Your task to perform on an android device: search for starred emails in the gmail app Image 0: 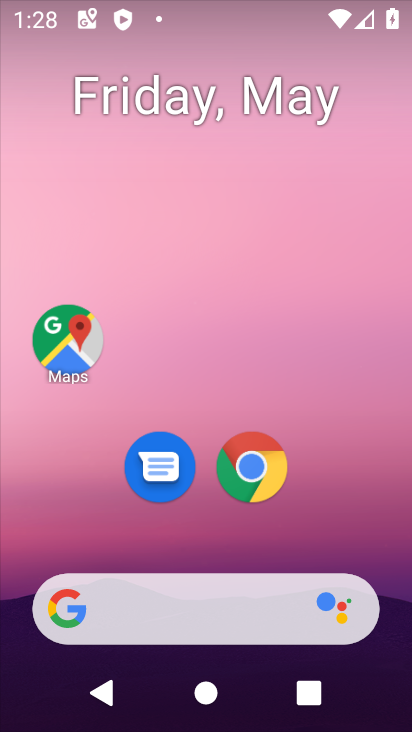
Step 0: drag from (331, 524) to (312, 75)
Your task to perform on an android device: search for starred emails in the gmail app Image 1: 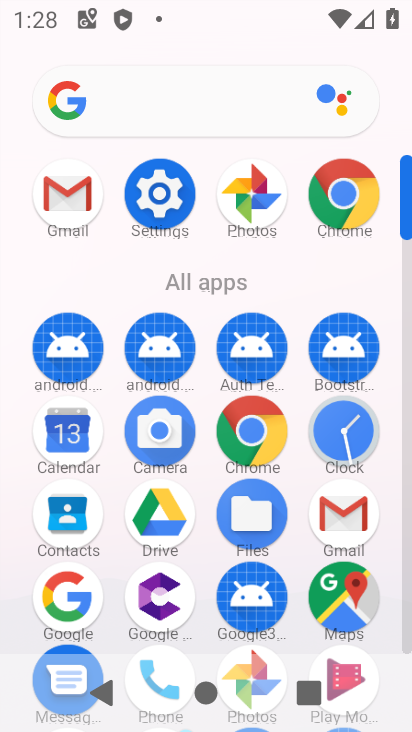
Step 1: click (80, 211)
Your task to perform on an android device: search for starred emails in the gmail app Image 2: 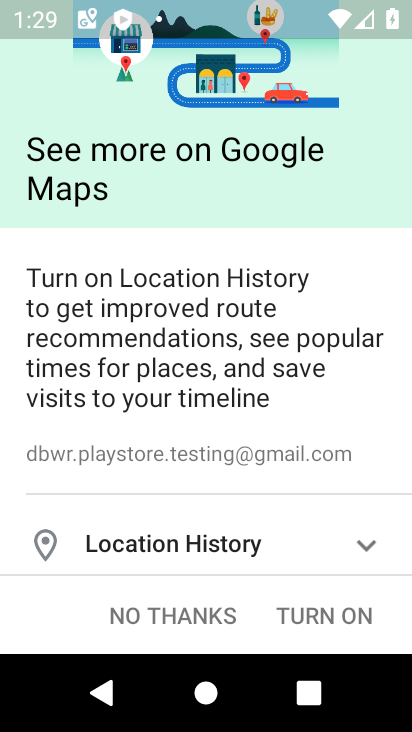
Step 2: click (158, 613)
Your task to perform on an android device: search for starred emails in the gmail app Image 3: 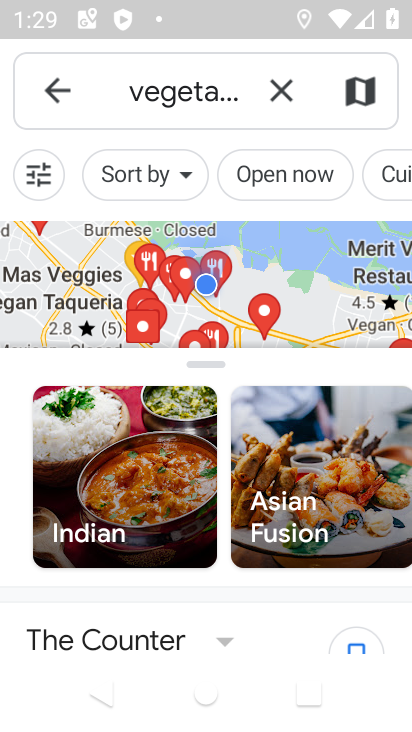
Step 3: press home button
Your task to perform on an android device: search for starred emails in the gmail app Image 4: 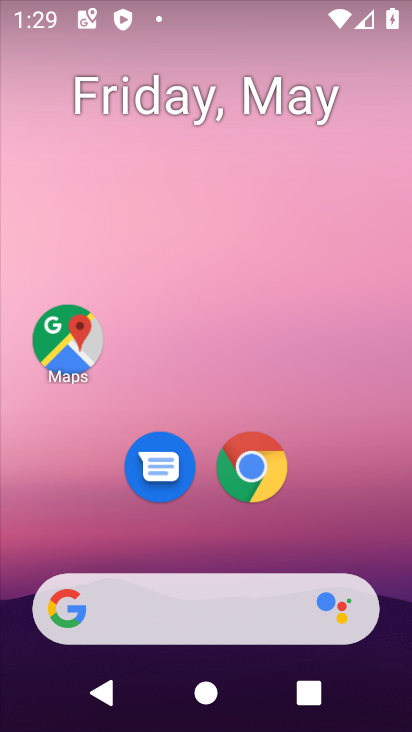
Step 4: drag from (343, 517) to (292, 35)
Your task to perform on an android device: search for starred emails in the gmail app Image 5: 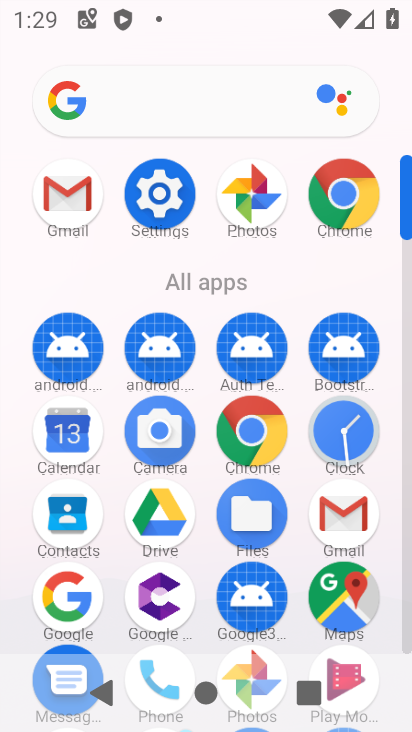
Step 5: click (338, 517)
Your task to perform on an android device: search for starred emails in the gmail app Image 6: 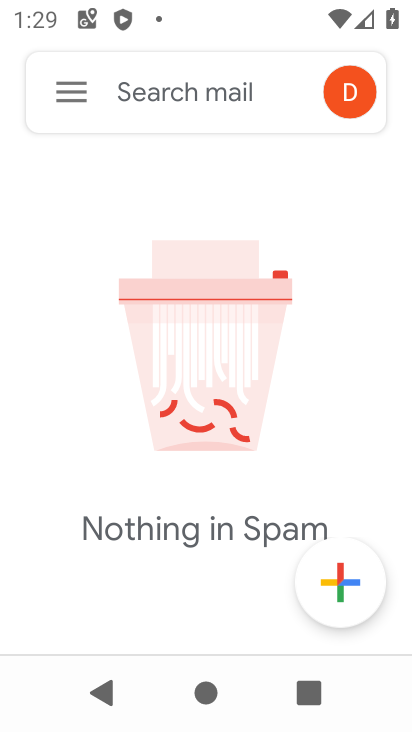
Step 6: click (63, 108)
Your task to perform on an android device: search for starred emails in the gmail app Image 7: 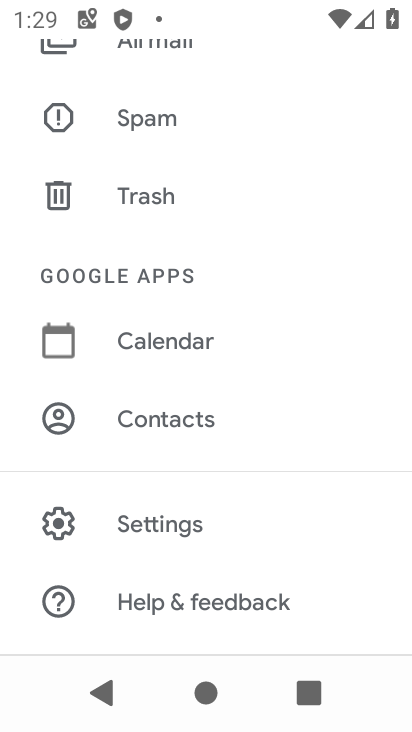
Step 7: drag from (181, 196) to (284, 607)
Your task to perform on an android device: search for starred emails in the gmail app Image 8: 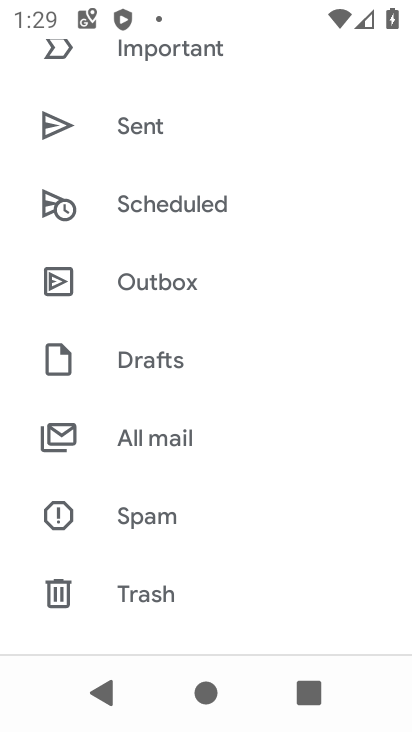
Step 8: drag from (251, 160) to (301, 593)
Your task to perform on an android device: search for starred emails in the gmail app Image 9: 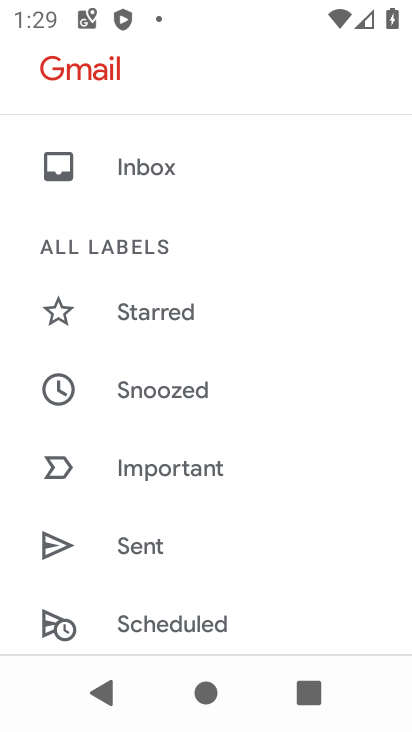
Step 9: click (142, 312)
Your task to perform on an android device: search for starred emails in the gmail app Image 10: 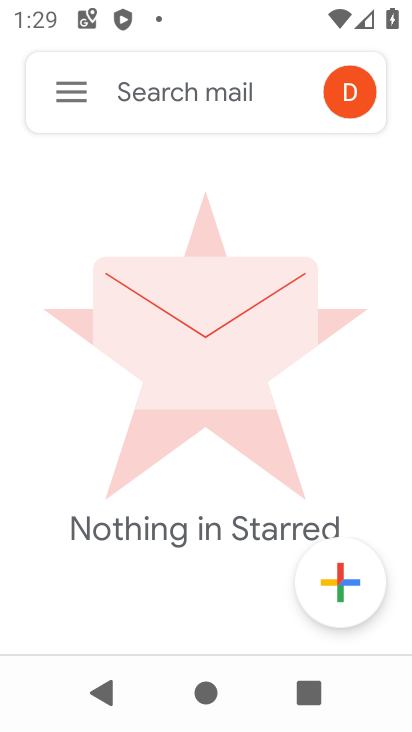
Step 10: task complete